Your task to perform on an android device: add a contact Image 0: 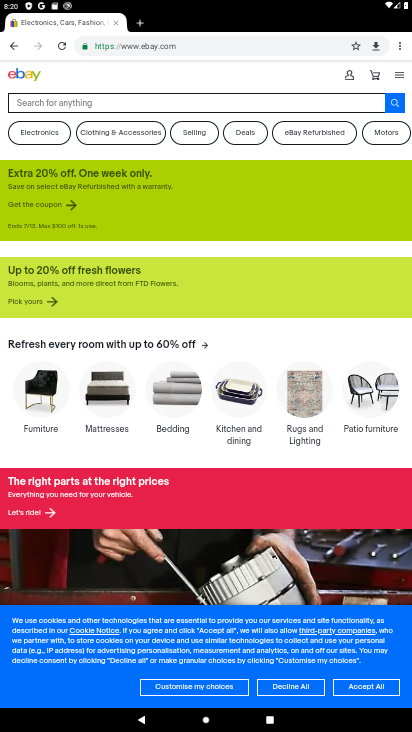
Step 0: press home button
Your task to perform on an android device: add a contact Image 1: 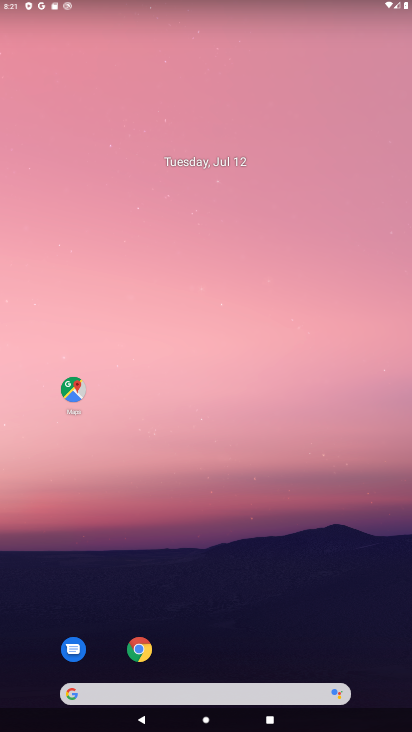
Step 1: drag from (291, 657) to (260, 166)
Your task to perform on an android device: add a contact Image 2: 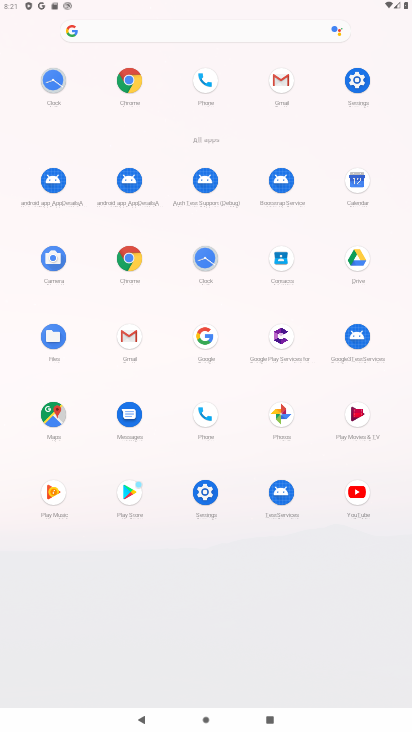
Step 2: click (285, 258)
Your task to perform on an android device: add a contact Image 3: 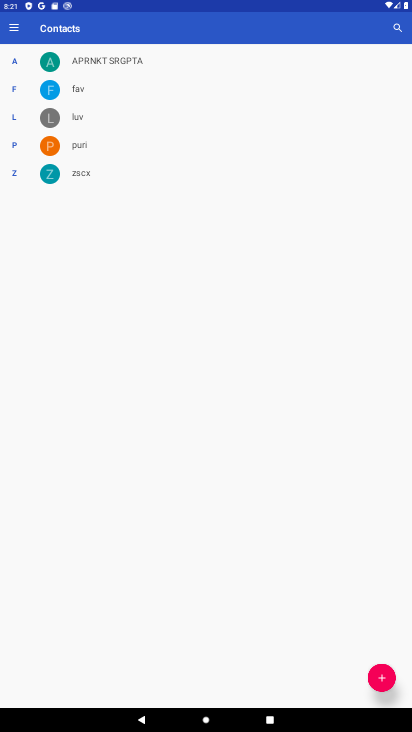
Step 3: click (387, 683)
Your task to perform on an android device: add a contact Image 4: 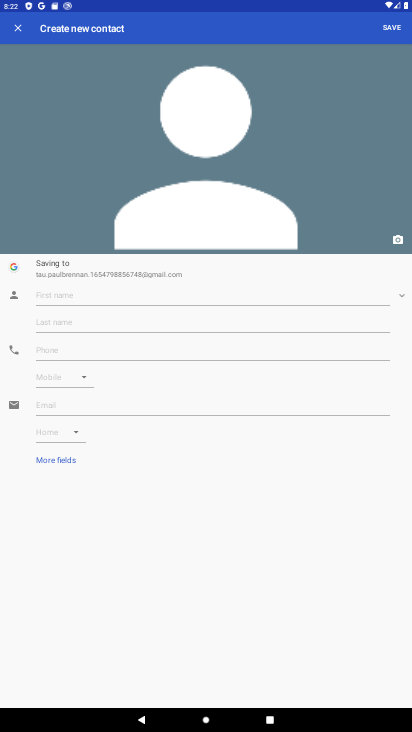
Step 4: click (217, 298)
Your task to perform on an android device: add a contact Image 5: 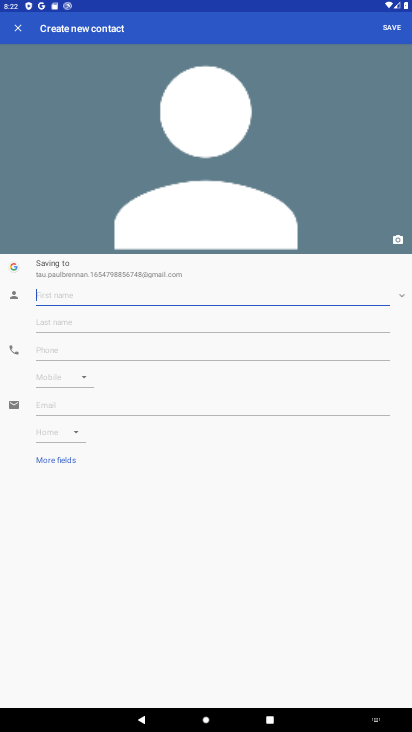
Step 5: type "bjbk"
Your task to perform on an android device: add a contact Image 6: 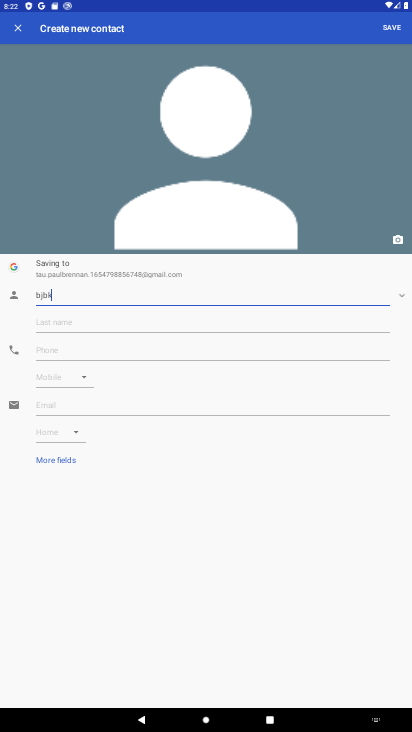
Step 6: click (299, 330)
Your task to perform on an android device: add a contact Image 7: 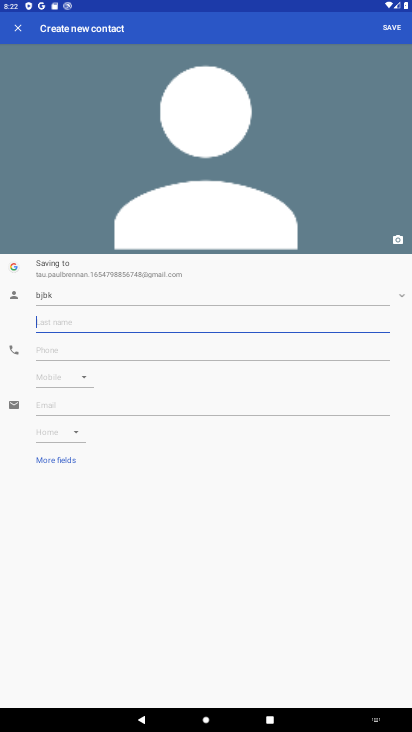
Step 7: click (299, 330)
Your task to perform on an android device: add a contact Image 8: 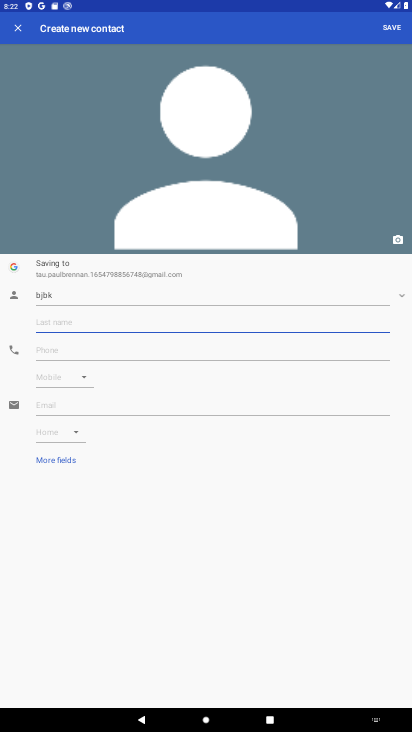
Step 8: type "nkkk"
Your task to perform on an android device: add a contact Image 9: 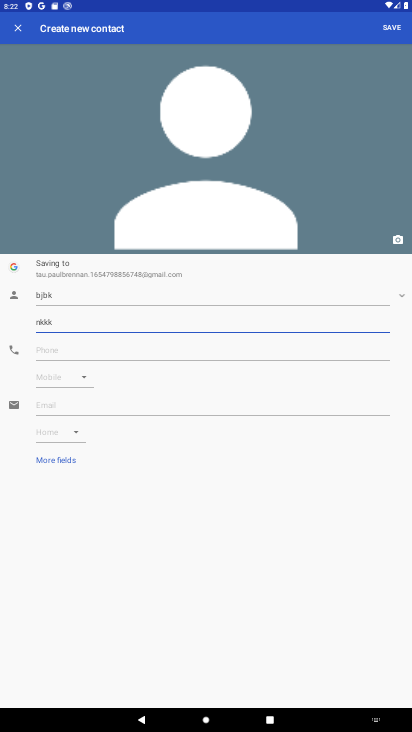
Step 9: click (252, 350)
Your task to perform on an android device: add a contact Image 10: 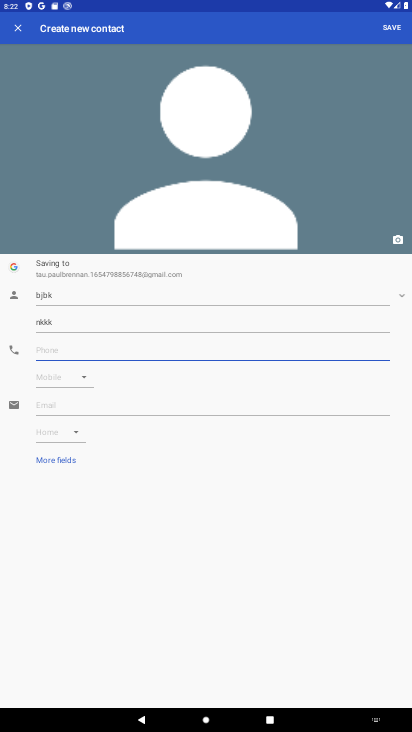
Step 10: type "8787857657"
Your task to perform on an android device: add a contact Image 11: 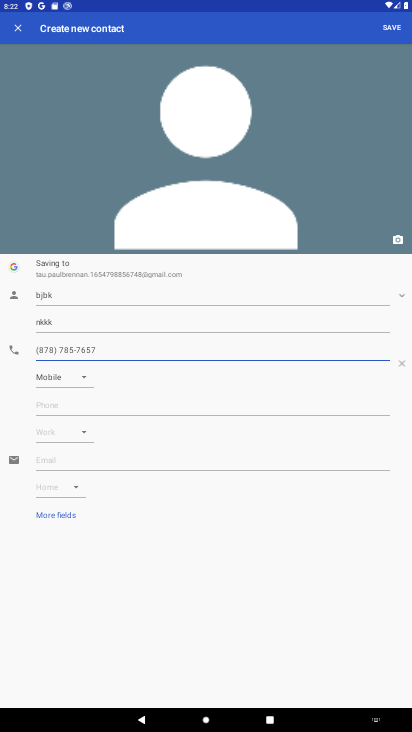
Step 11: click (387, 32)
Your task to perform on an android device: add a contact Image 12: 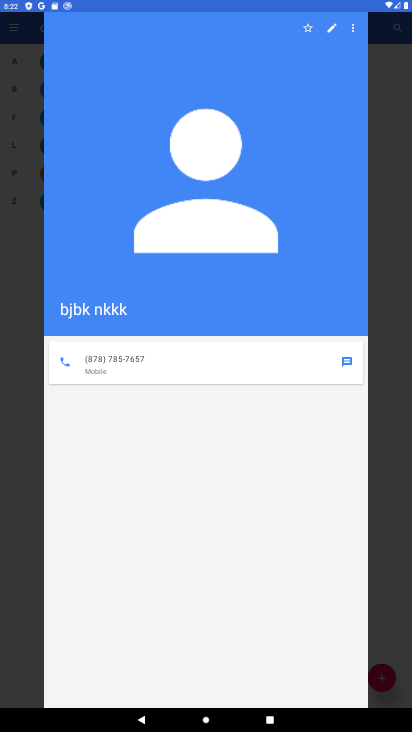
Step 12: task complete